Your task to perform on an android device: Search for seafood restaurants on Google Maps Image 0: 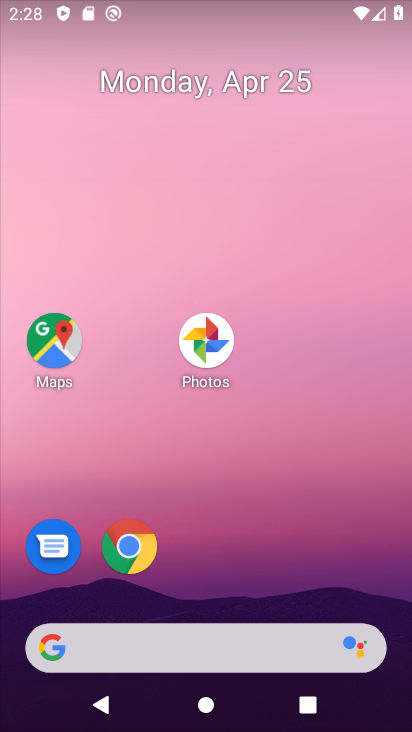
Step 0: drag from (262, 579) to (336, 183)
Your task to perform on an android device: Search for seafood restaurants on Google Maps Image 1: 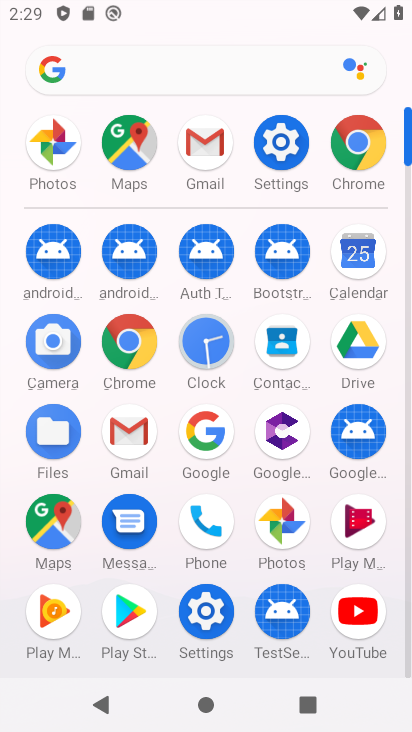
Step 1: click (45, 513)
Your task to perform on an android device: Search for seafood restaurants on Google Maps Image 2: 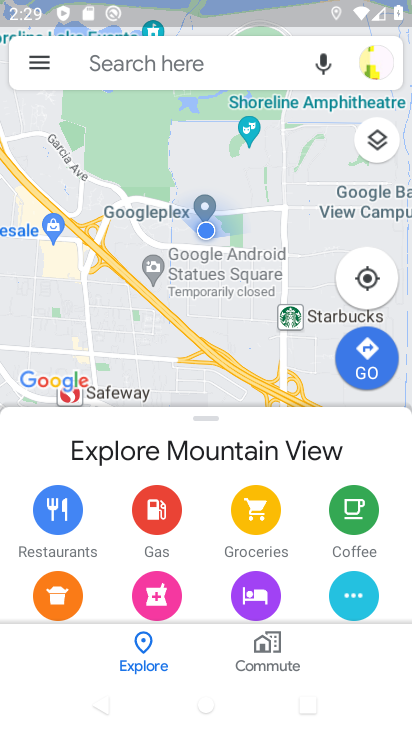
Step 2: click (219, 62)
Your task to perform on an android device: Search for seafood restaurants on Google Maps Image 3: 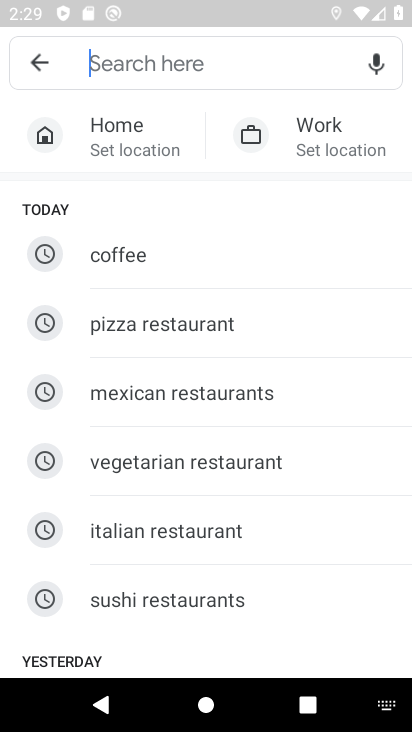
Step 3: type "seafood restaurants "
Your task to perform on an android device: Search for seafood restaurants on Google Maps Image 4: 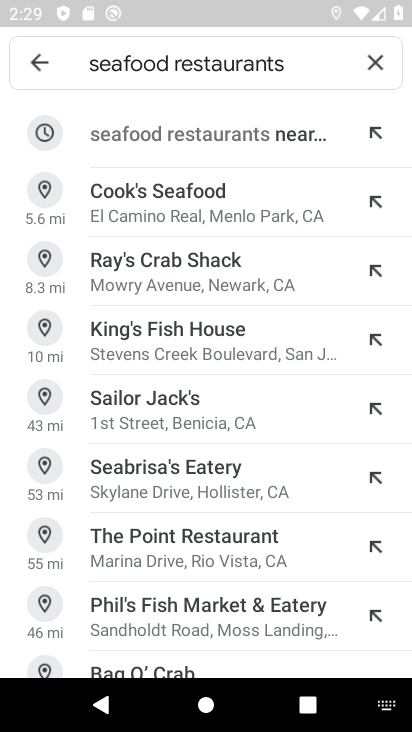
Step 4: click (219, 126)
Your task to perform on an android device: Search for seafood restaurants on Google Maps Image 5: 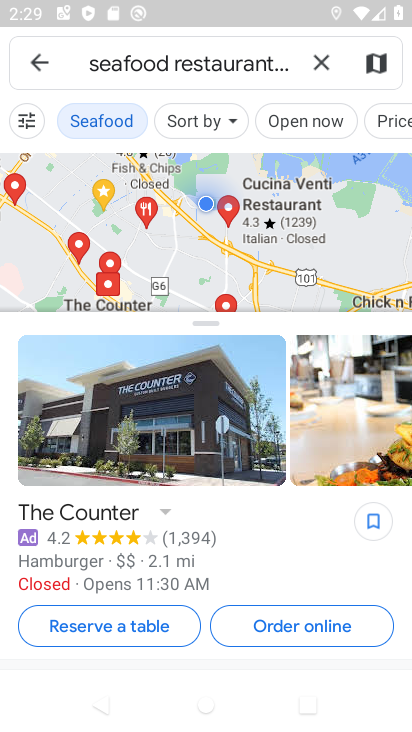
Step 5: task complete